Your task to perform on an android device: What's on the menu at McDonalds? Image 0: 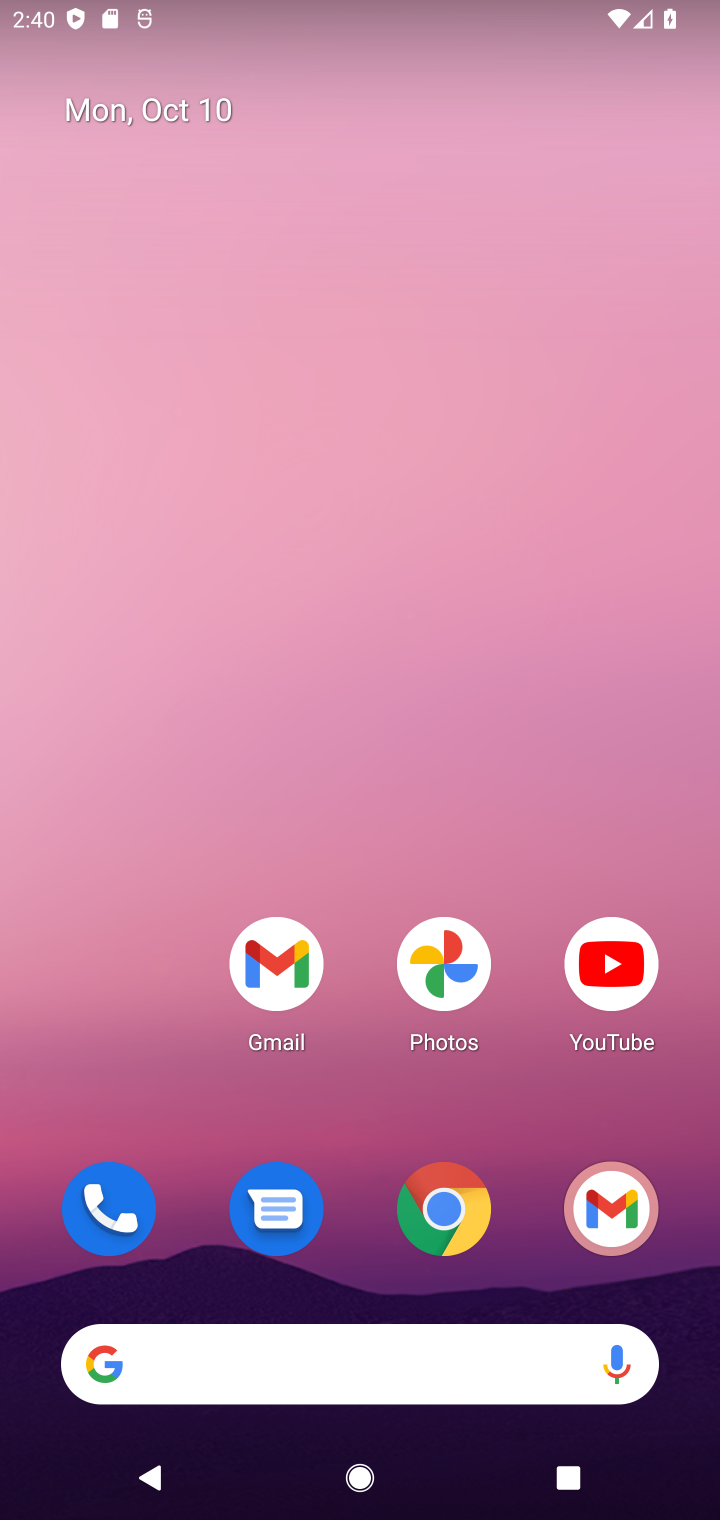
Step 0: click (460, 1219)
Your task to perform on an android device: What's on the menu at McDonalds? Image 1: 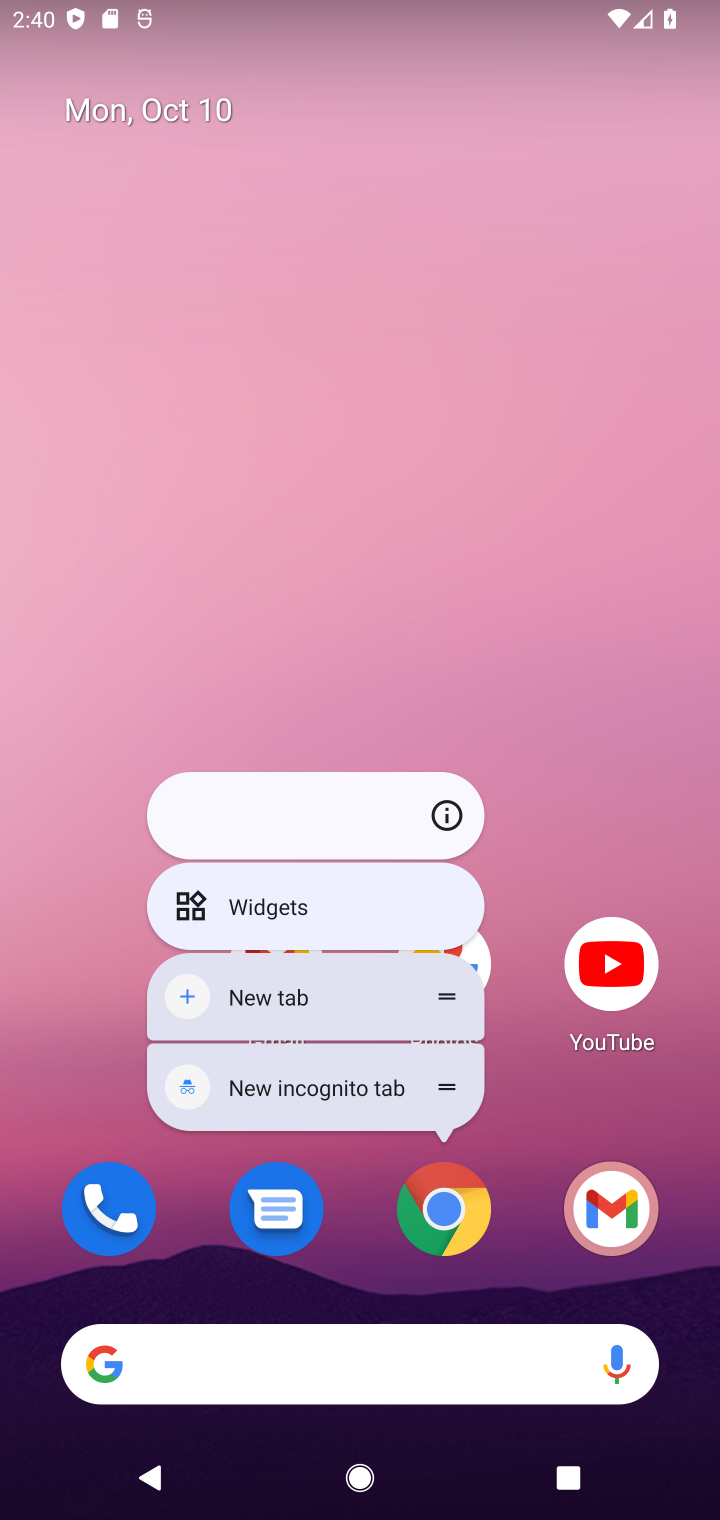
Step 1: click (460, 1219)
Your task to perform on an android device: What's on the menu at McDonalds? Image 2: 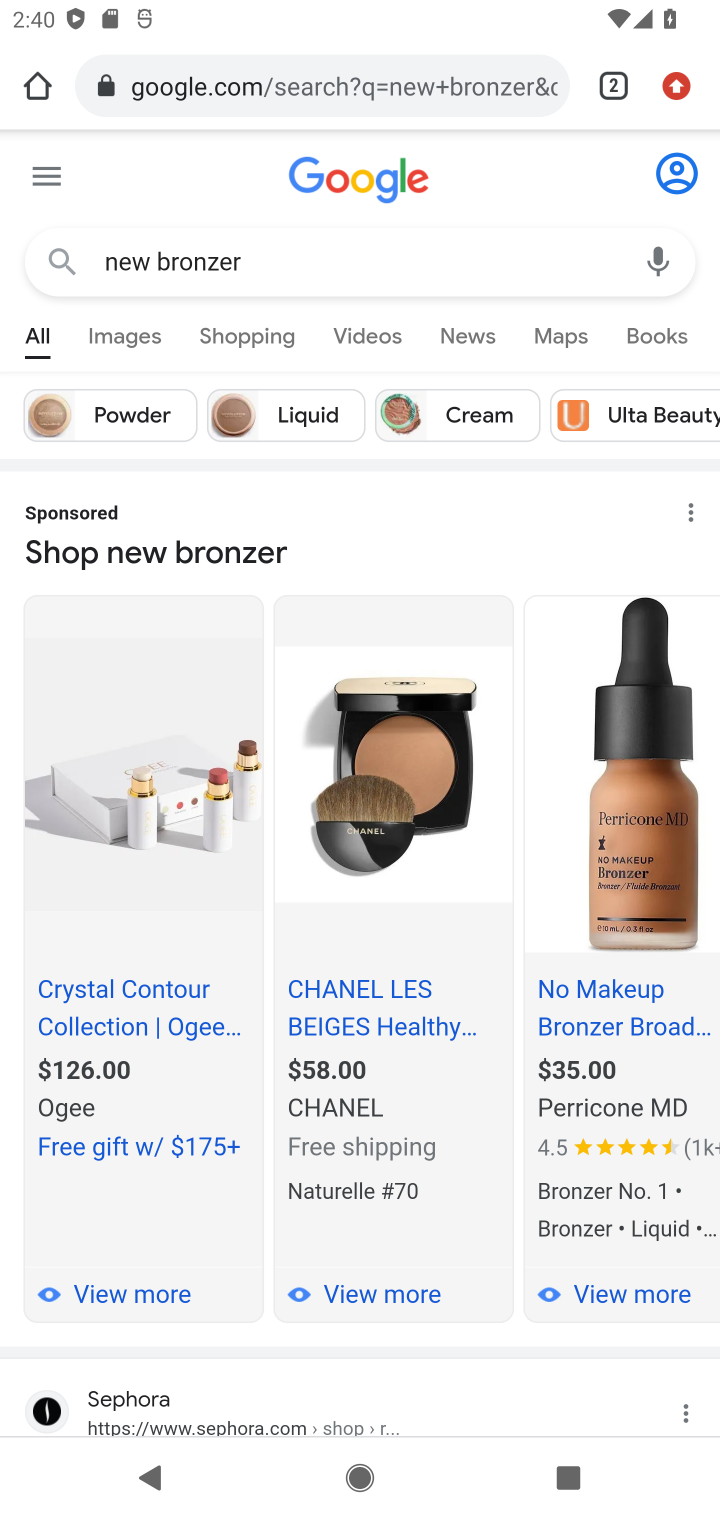
Step 2: click (353, 246)
Your task to perform on an android device: What's on the menu at McDonalds? Image 3: 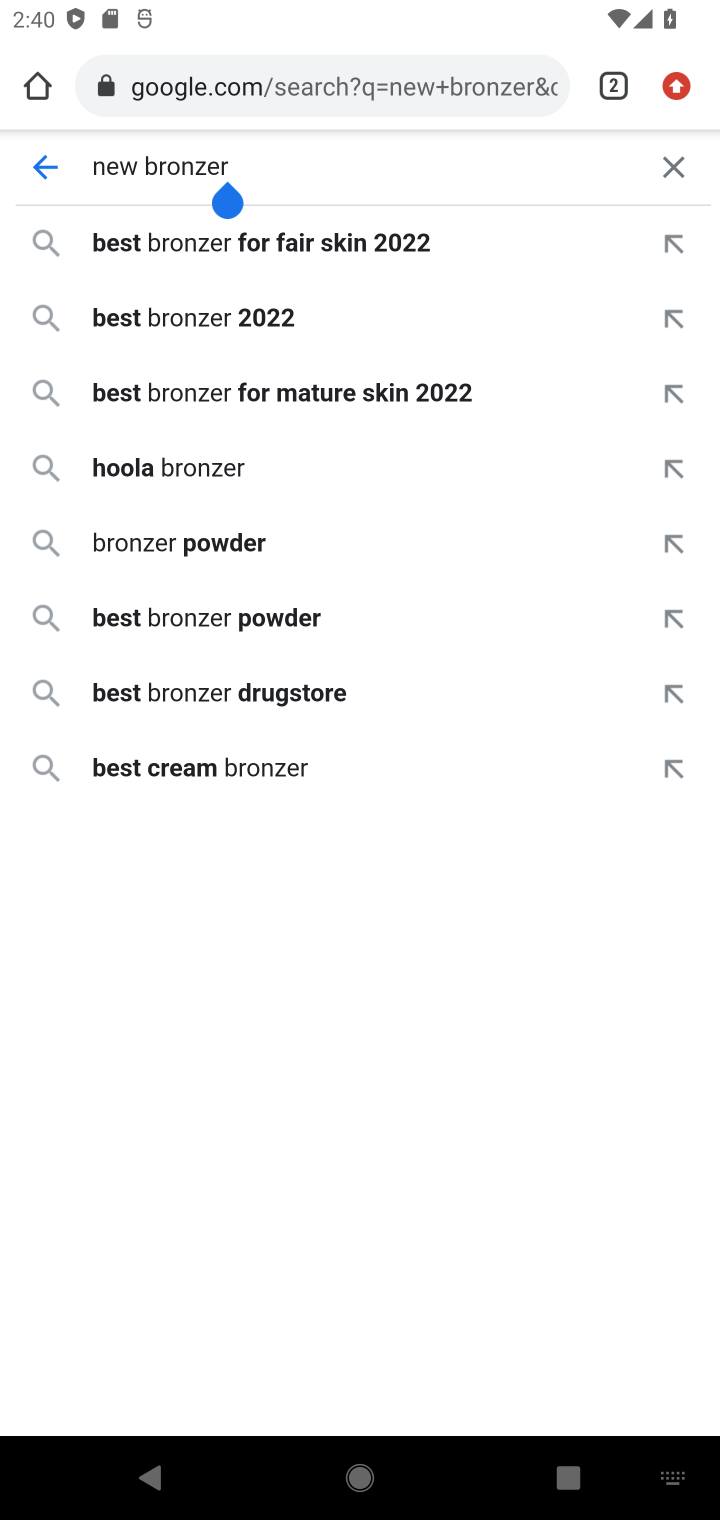
Step 3: click (681, 166)
Your task to perform on an android device: What's on the menu at McDonalds? Image 4: 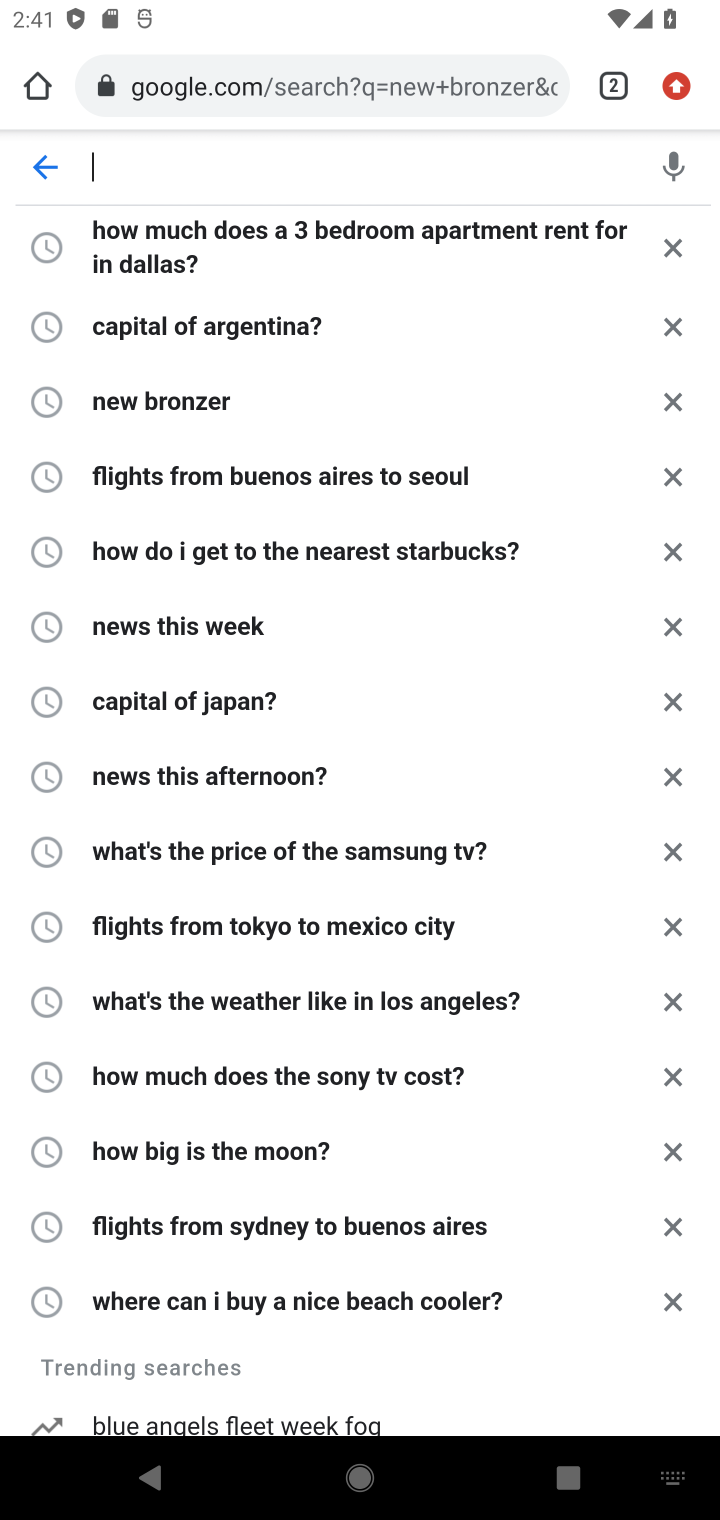
Step 4: type "news at mcdonalds"
Your task to perform on an android device: What's on the menu at McDonalds? Image 5: 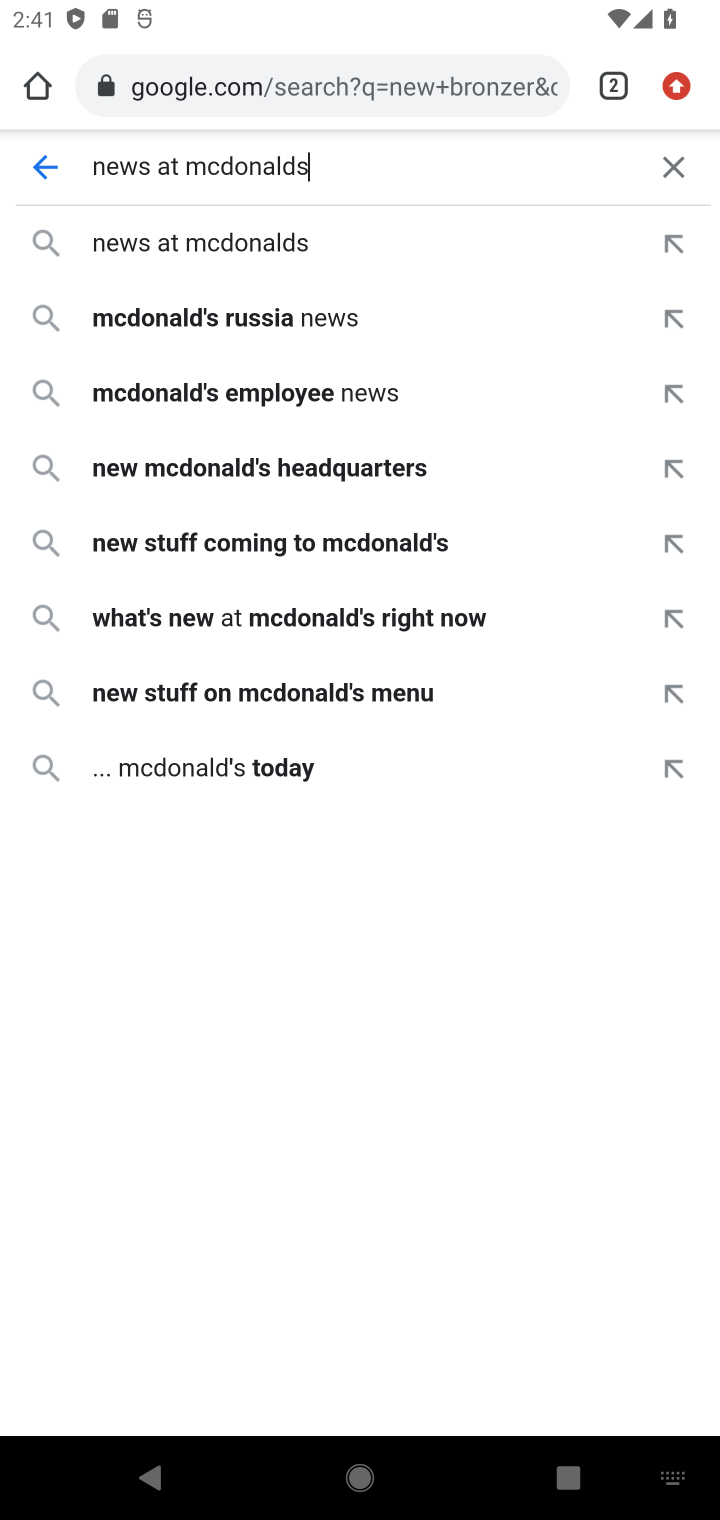
Step 5: click (254, 227)
Your task to perform on an android device: What's on the menu at McDonalds? Image 6: 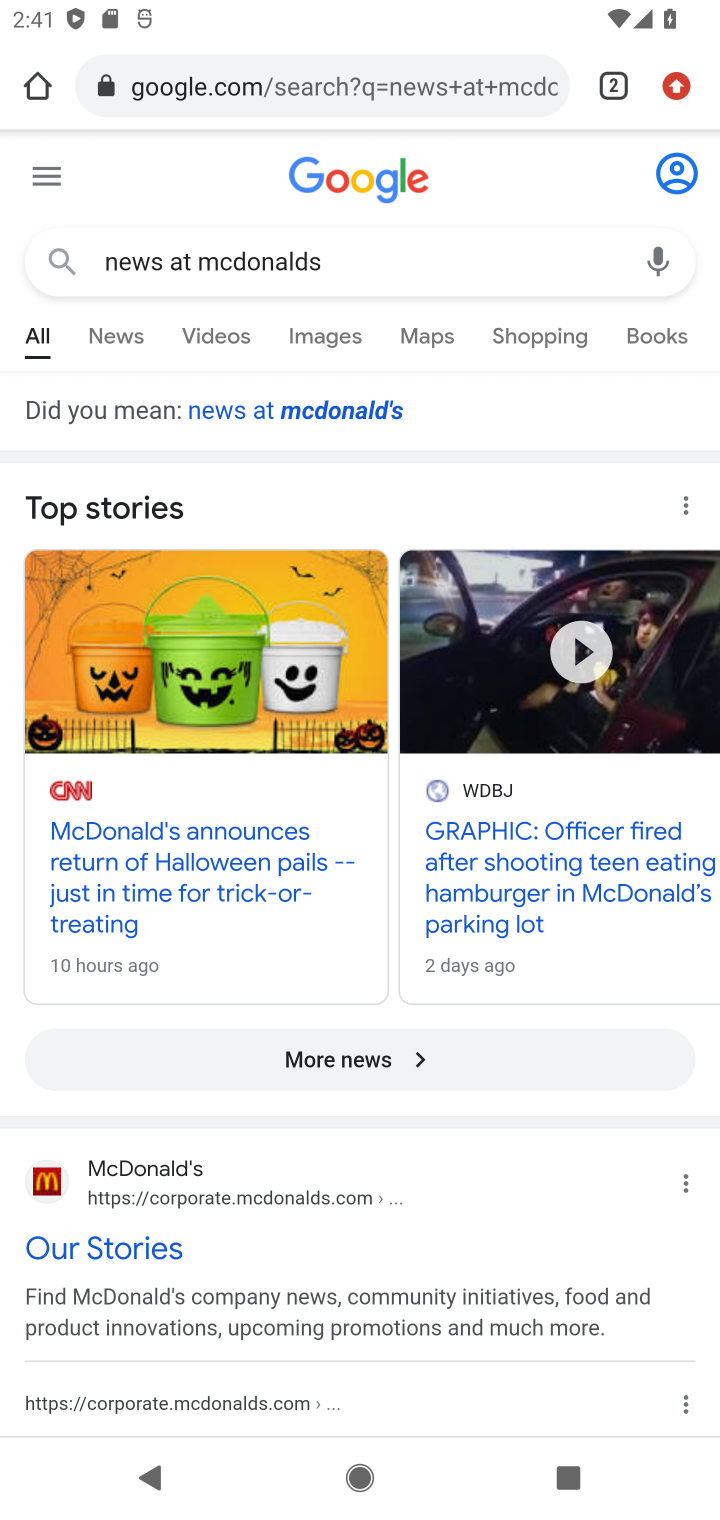
Step 6: click (329, 413)
Your task to perform on an android device: What's on the menu at McDonalds? Image 7: 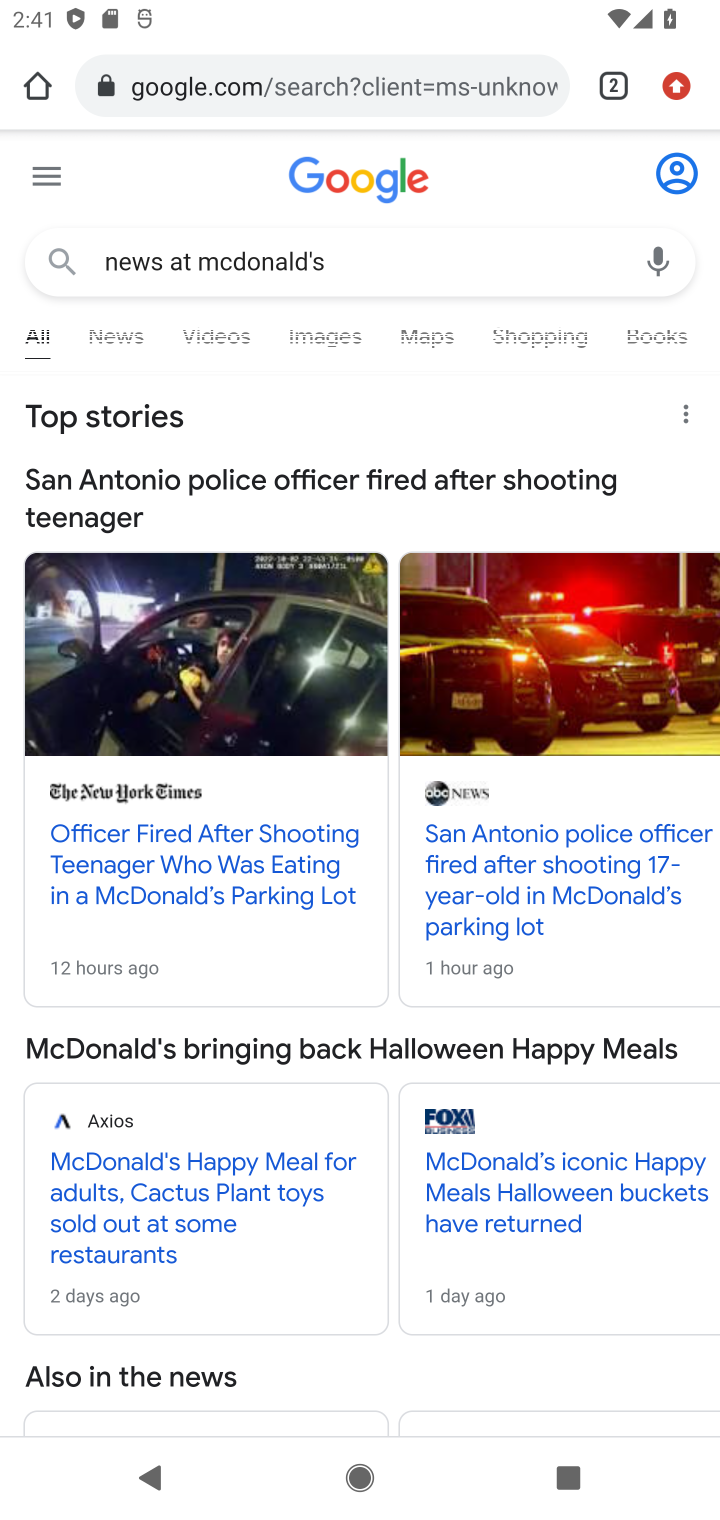
Step 7: task complete